Your task to perform on an android device: Clear the shopping cart on costco.com. Search for "razer thresher" on costco.com, select the first entry, add it to the cart, then select checkout. Image 0: 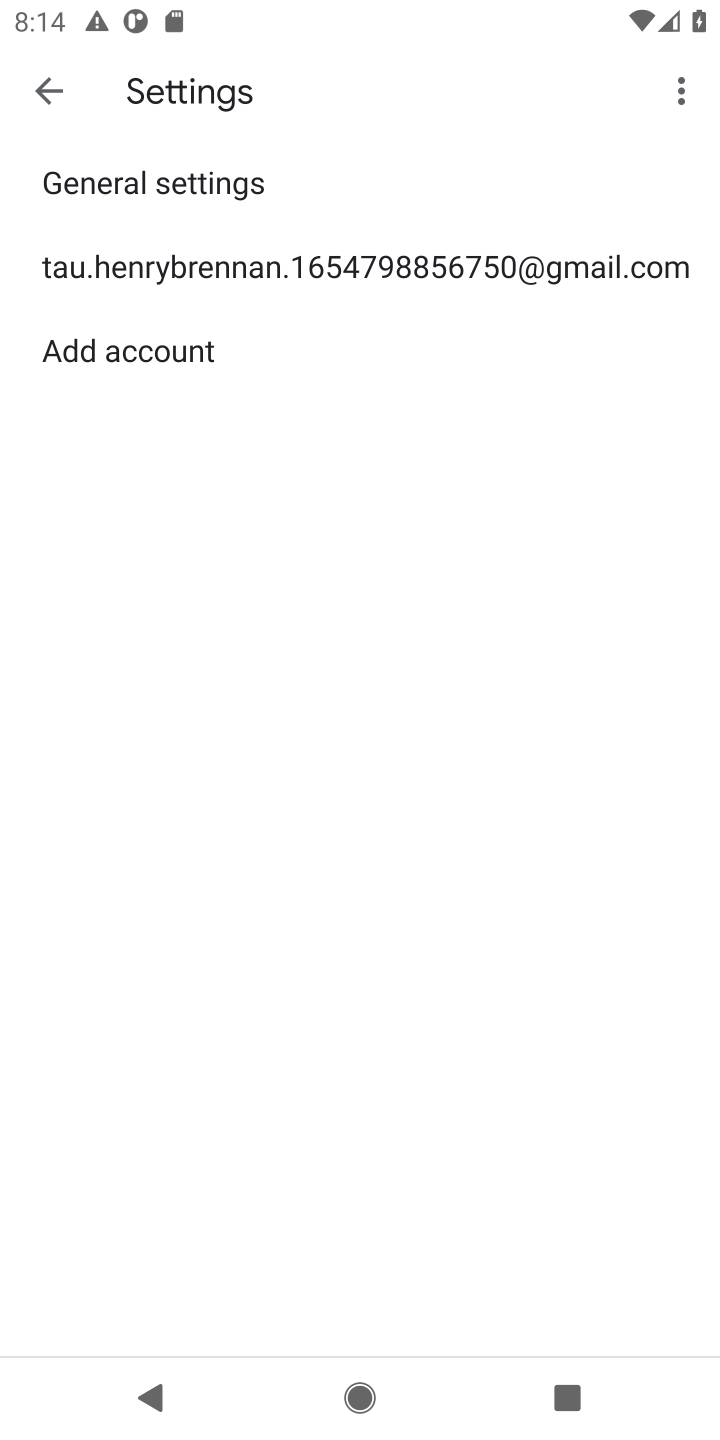
Step 0: press home button
Your task to perform on an android device: Clear the shopping cart on costco.com. Search for "razer thresher" on costco.com, select the first entry, add it to the cart, then select checkout. Image 1: 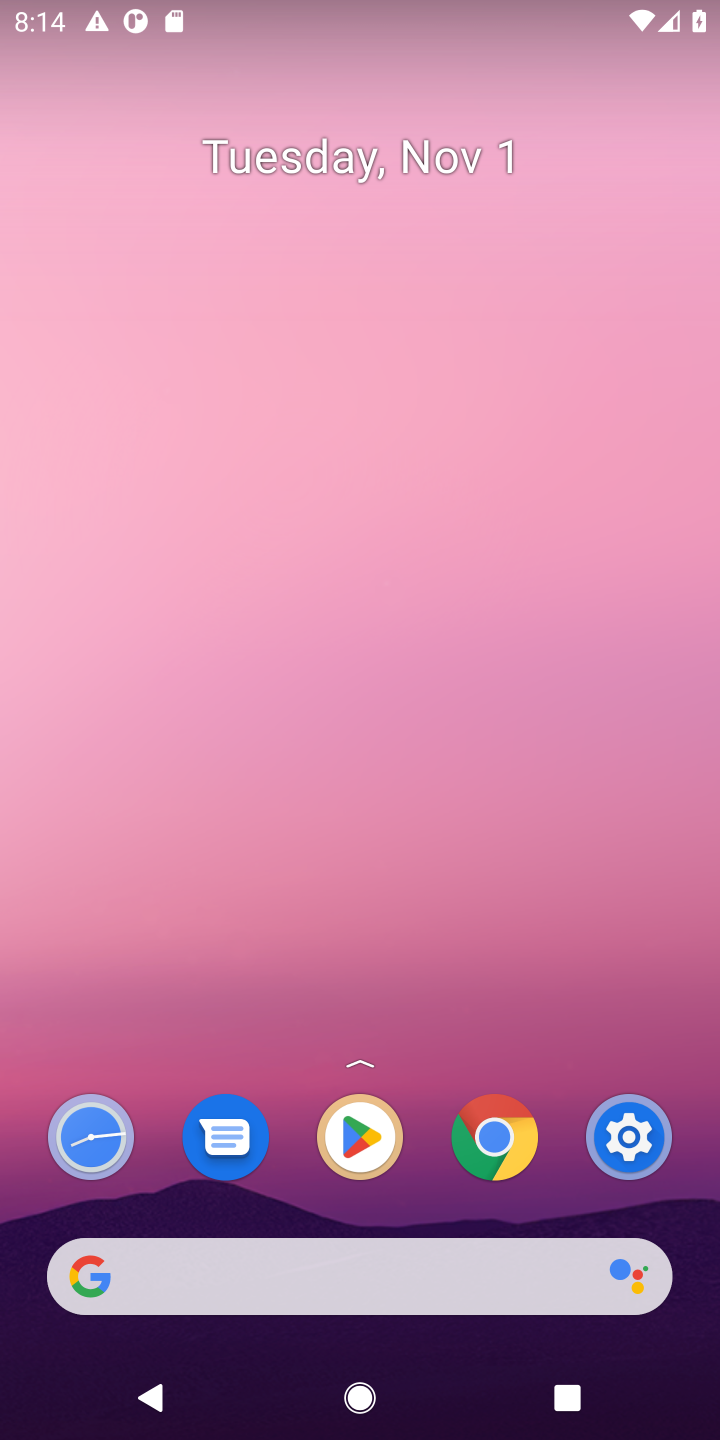
Step 1: click (424, 92)
Your task to perform on an android device: Clear the shopping cart on costco.com. Search for "razer thresher" on costco.com, select the first entry, add it to the cart, then select checkout. Image 2: 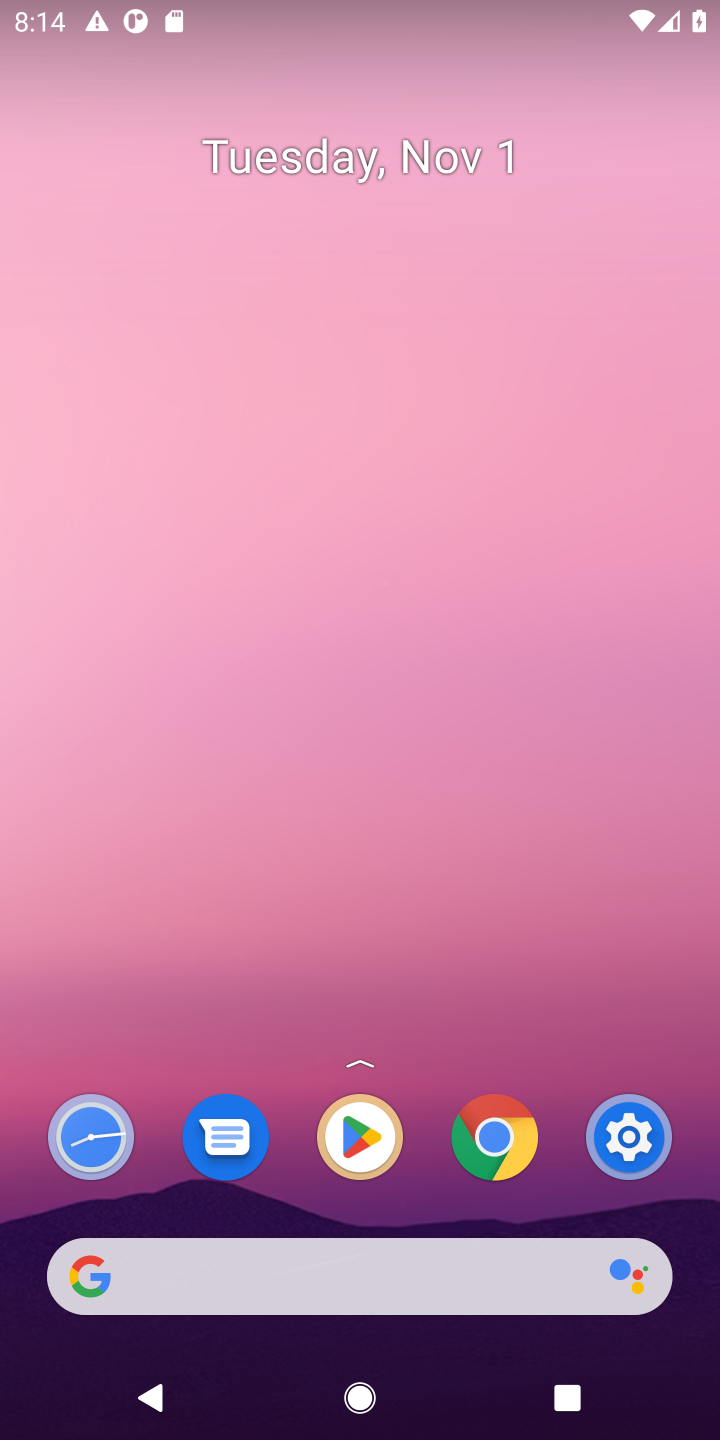
Step 2: drag from (342, 1208) to (399, 425)
Your task to perform on an android device: Clear the shopping cart on costco.com. Search for "razer thresher" on costco.com, select the first entry, add it to the cart, then select checkout. Image 3: 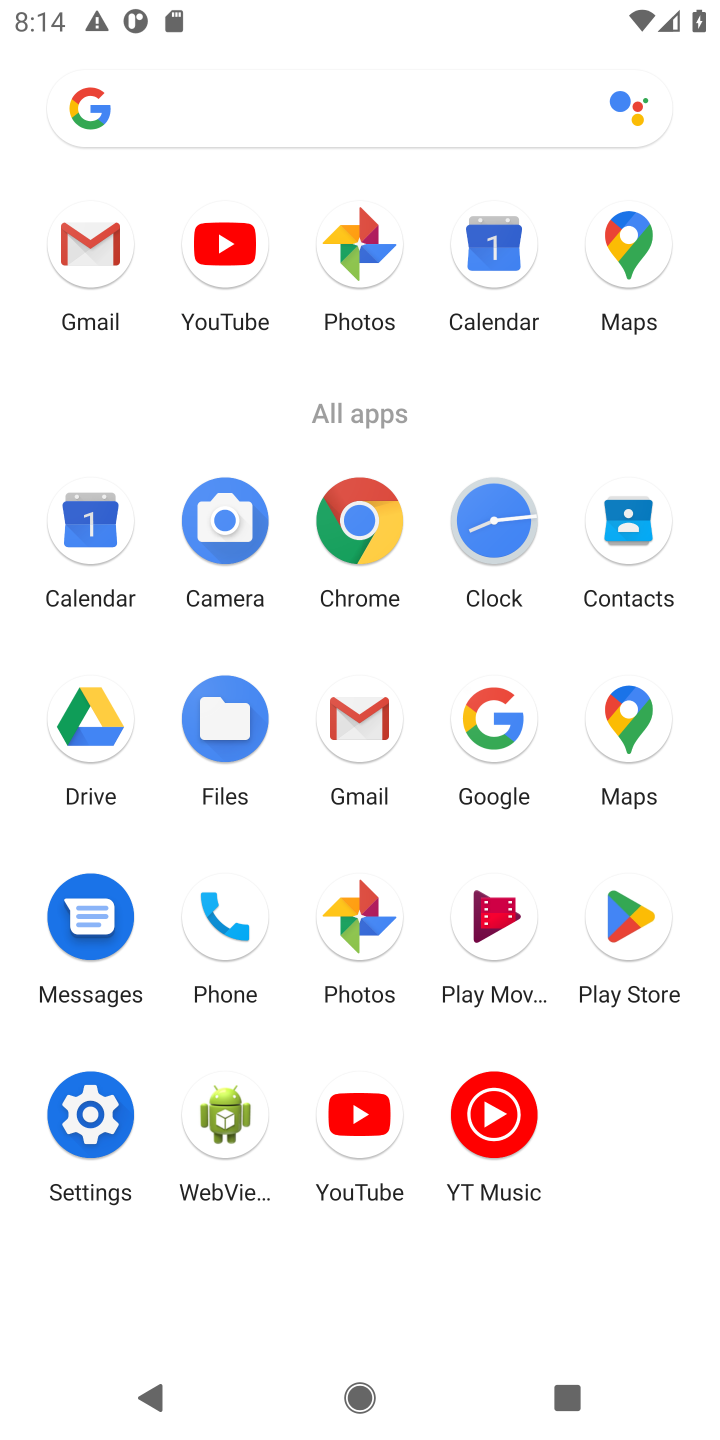
Step 3: click (489, 751)
Your task to perform on an android device: Clear the shopping cart on costco.com. Search for "razer thresher" on costco.com, select the first entry, add it to the cart, then select checkout. Image 4: 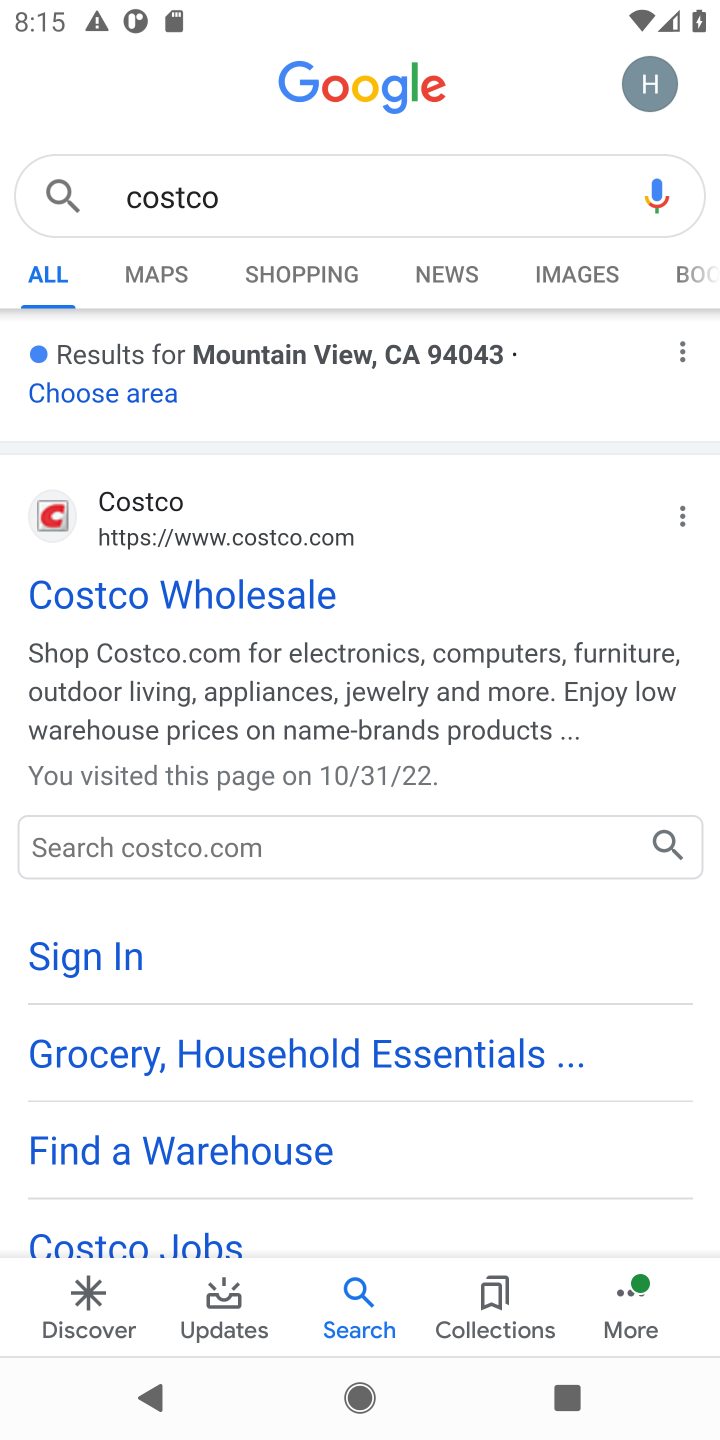
Step 4: click (143, 494)
Your task to perform on an android device: Clear the shopping cart on costco.com. Search for "razer thresher" on costco.com, select the first entry, add it to the cart, then select checkout. Image 5: 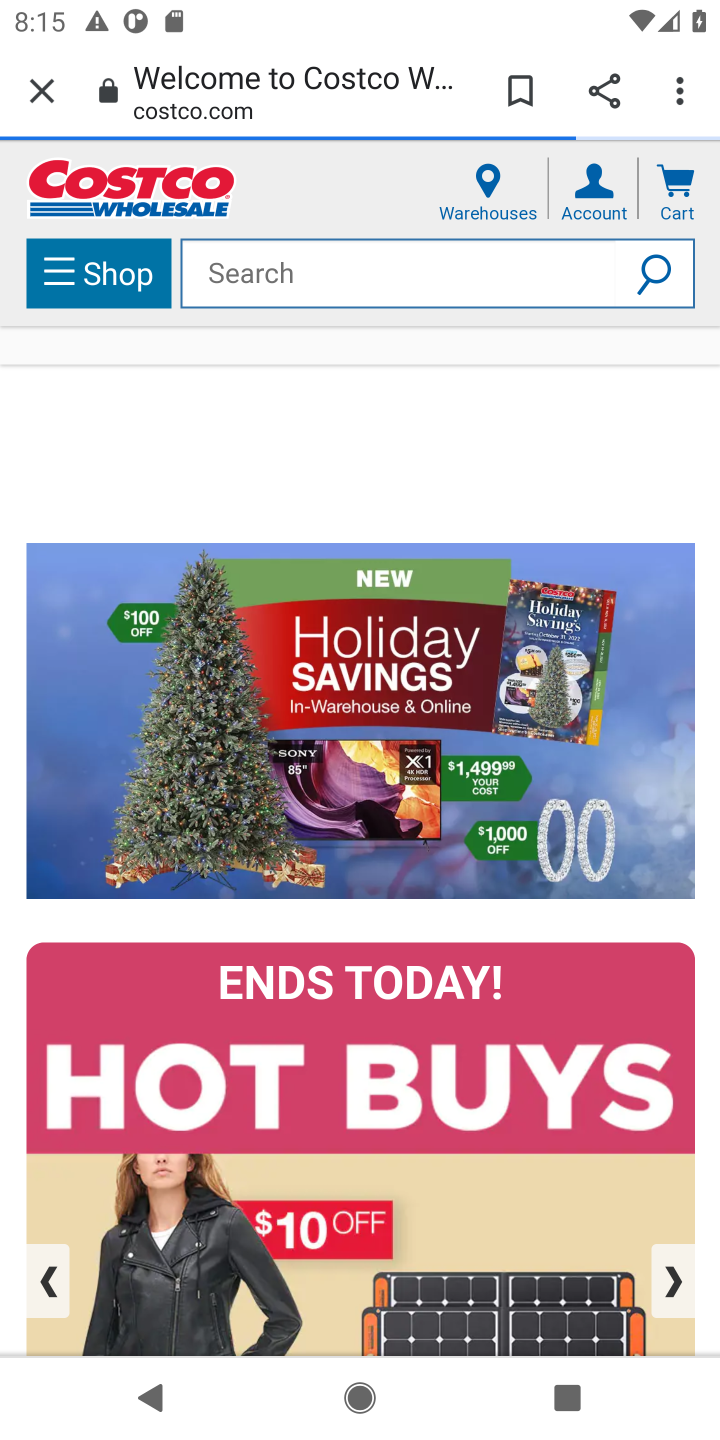
Step 5: click (678, 190)
Your task to perform on an android device: Clear the shopping cart on costco.com. Search for "razer thresher" on costco.com, select the first entry, add it to the cart, then select checkout. Image 6: 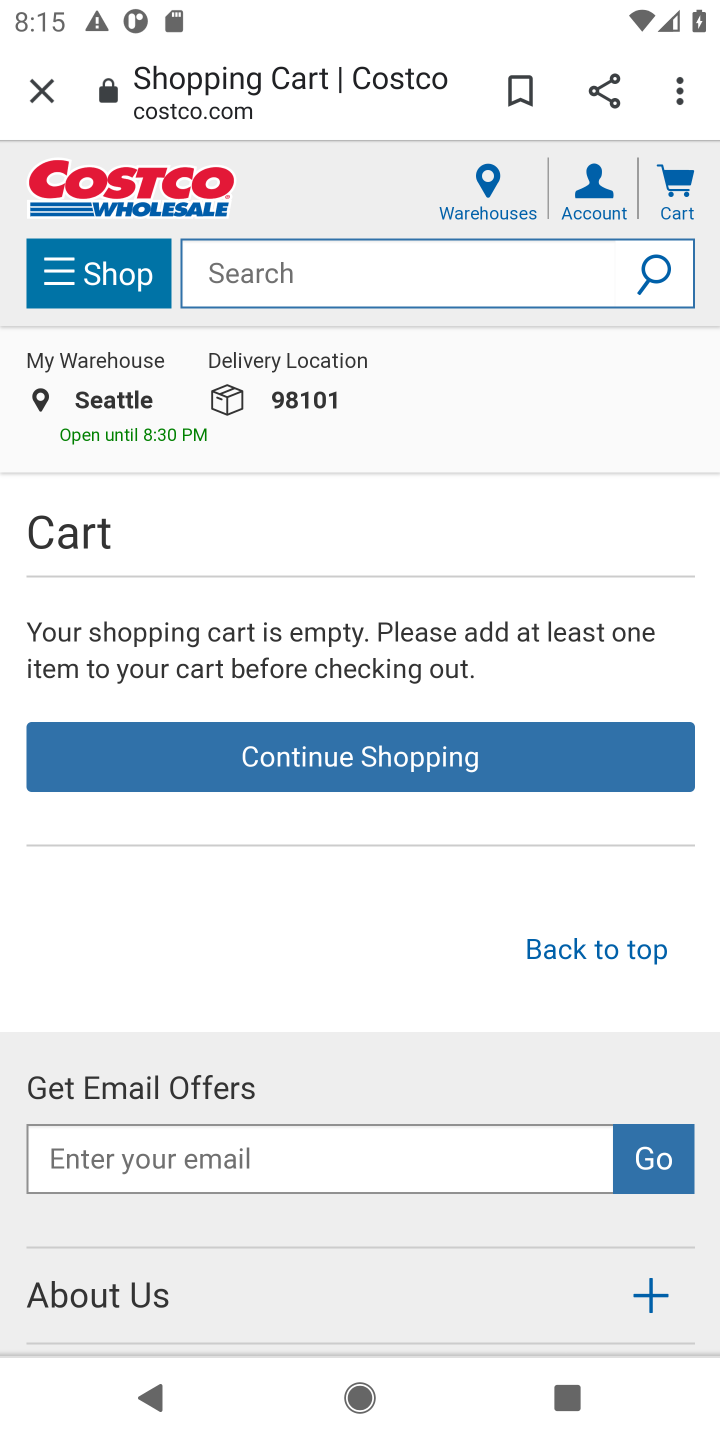
Step 6: task complete